Your task to perform on an android device: Show me popular games on the Play Store Image 0: 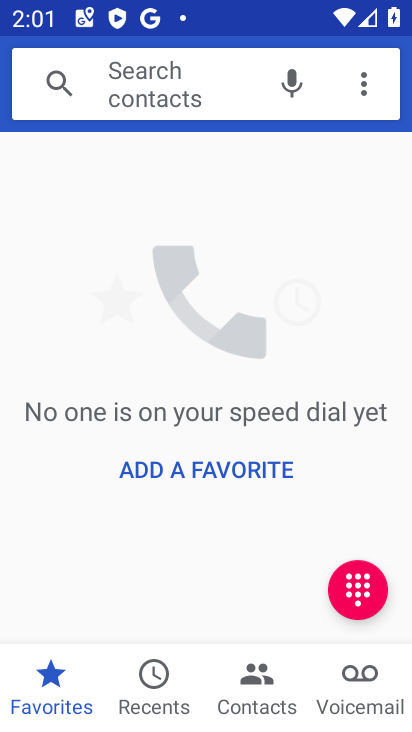
Step 0: press back button
Your task to perform on an android device: Show me popular games on the Play Store Image 1: 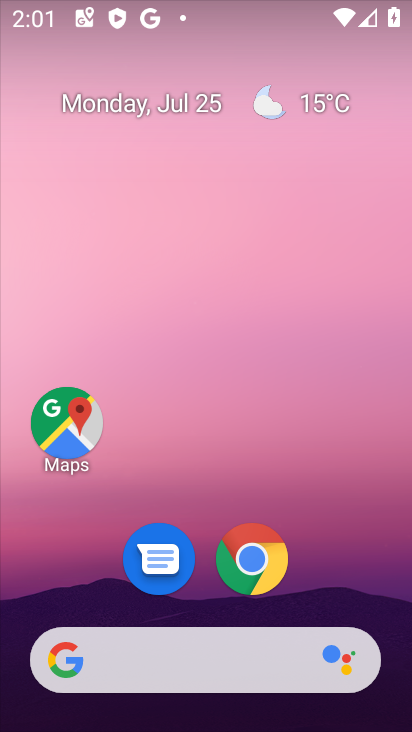
Step 1: drag from (106, 584) to (220, 132)
Your task to perform on an android device: Show me popular games on the Play Store Image 2: 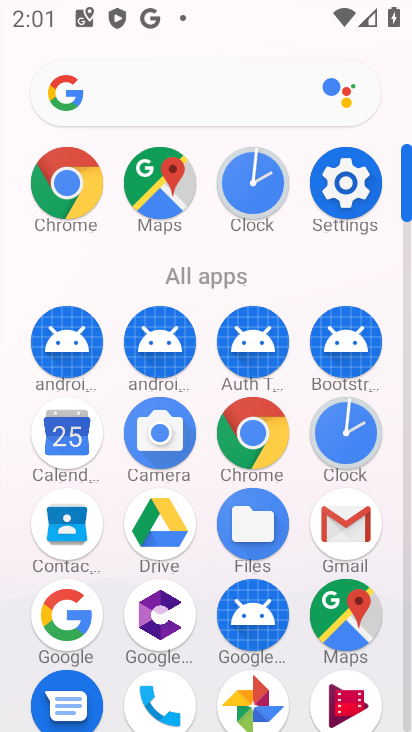
Step 2: drag from (200, 502) to (290, 171)
Your task to perform on an android device: Show me popular games on the Play Store Image 3: 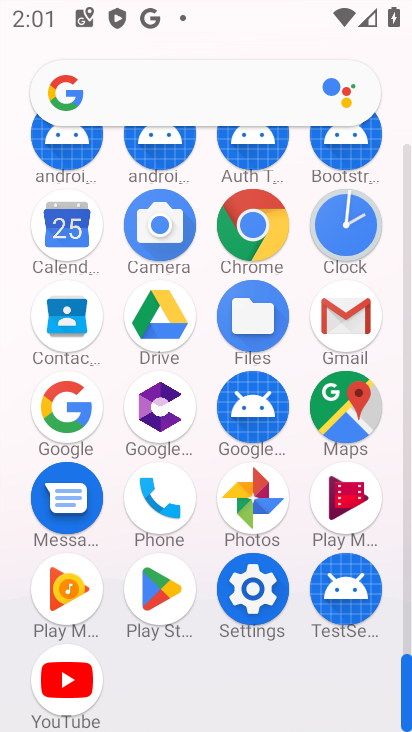
Step 3: click (183, 565)
Your task to perform on an android device: Show me popular games on the Play Store Image 4: 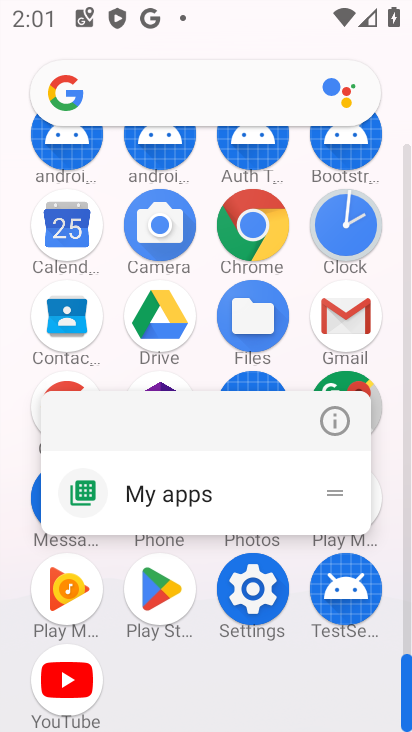
Step 4: click (161, 578)
Your task to perform on an android device: Show me popular games on the Play Store Image 5: 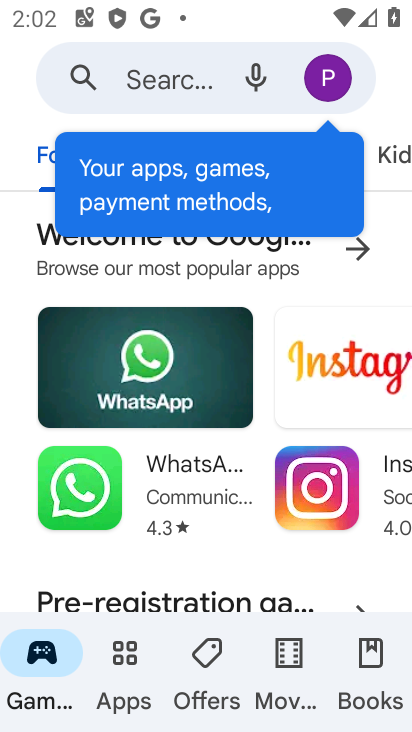
Step 5: drag from (125, 568) to (253, 178)
Your task to perform on an android device: Show me popular games on the Play Store Image 6: 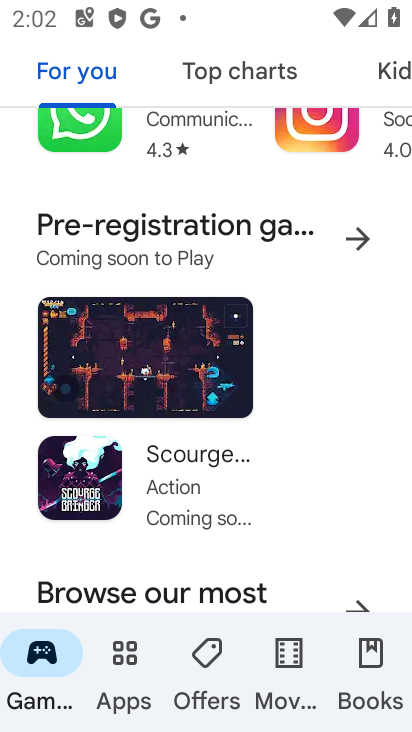
Step 6: drag from (196, 568) to (284, 266)
Your task to perform on an android device: Show me popular games on the Play Store Image 7: 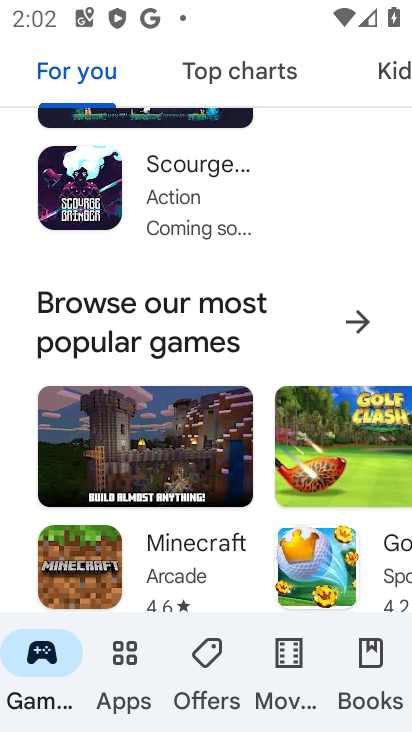
Step 7: click (351, 301)
Your task to perform on an android device: Show me popular games on the Play Store Image 8: 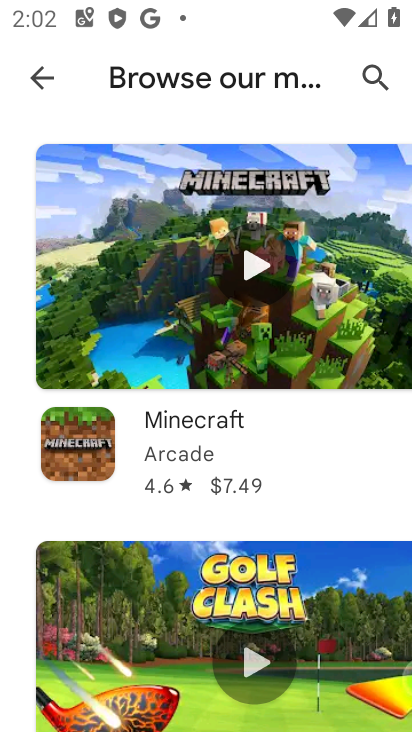
Step 8: task complete